Your task to perform on an android device: Open ESPN.com Image 0: 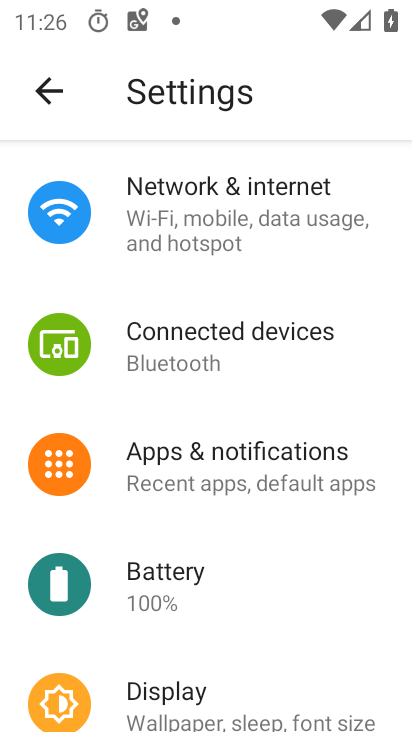
Step 0: press home button
Your task to perform on an android device: Open ESPN.com Image 1: 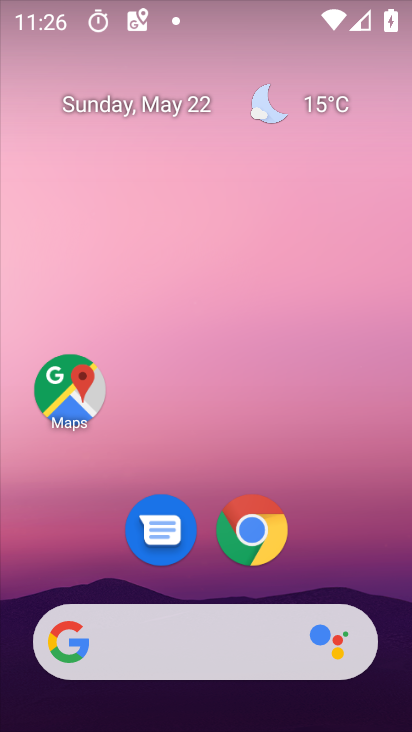
Step 1: drag from (399, 661) to (371, 238)
Your task to perform on an android device: Open ESPN.com Image 2: 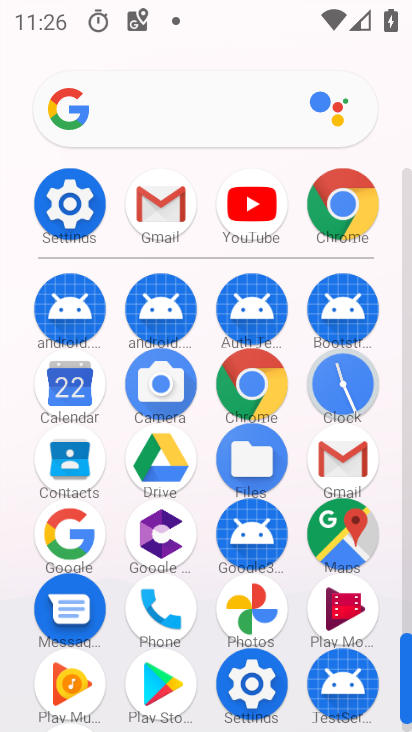
Step 2: click (345, 203)
Your task to perform on an android device: Open ESPN.com Image 3: 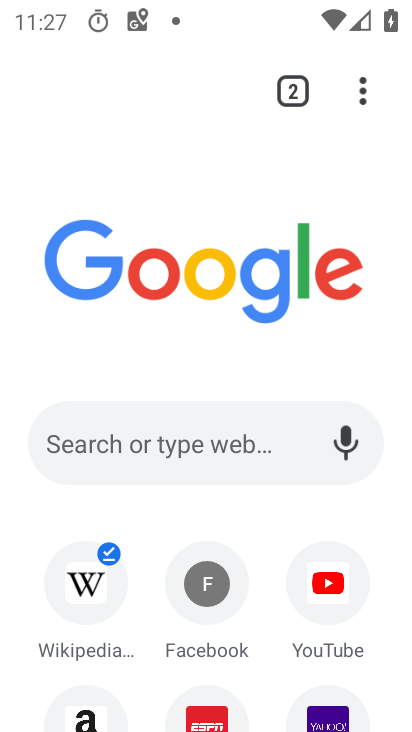
Step 3: click (255, 437)
Your task to perform on an android device: Open ESPN.com Image 4: 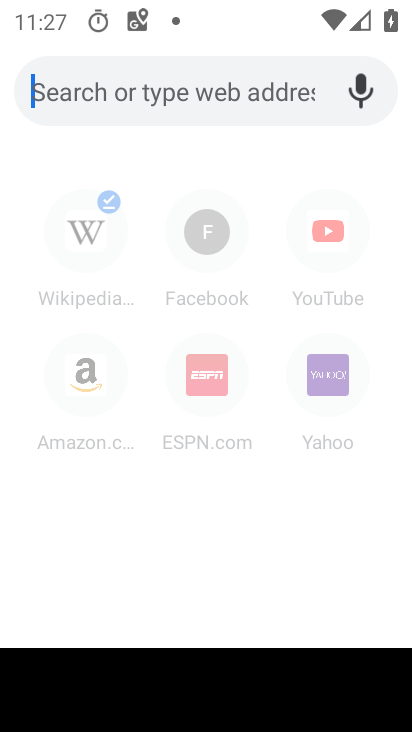
Step 4: type "ESPN.com"
Your task to perform on an android device: Open ESPN.com Image 5: 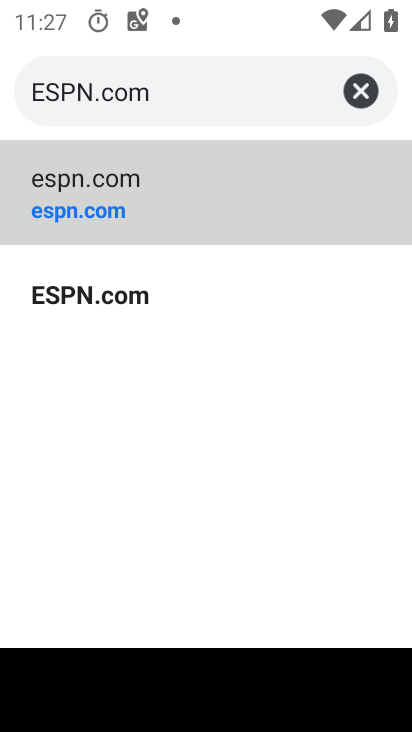
Step 5: click (121, 291)
Your task to perform on an android device: Open ESPN.com Image 6: 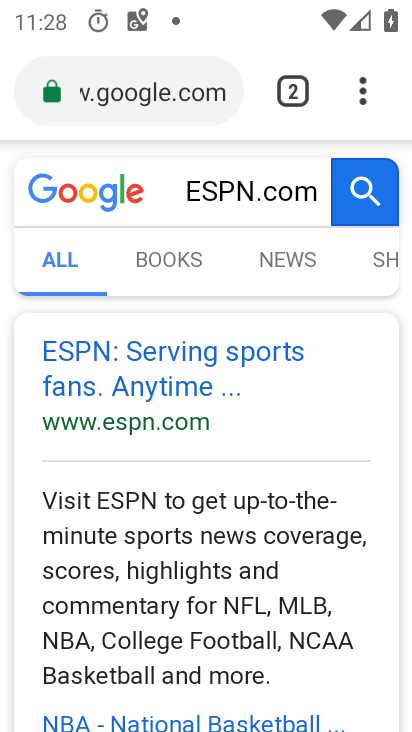
Step 6: click (227, 90)
Your task to perform on an android device: Open ESPN.com Image 7: 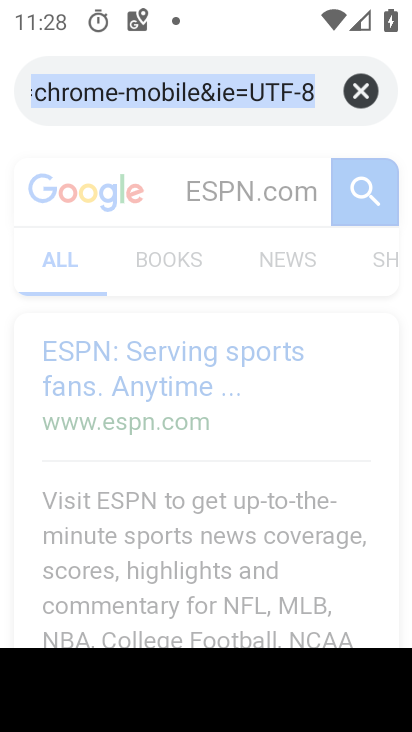
Step 7: click (359, 91)
Your task to perform on an android device: Open ESPN.com Image 8: 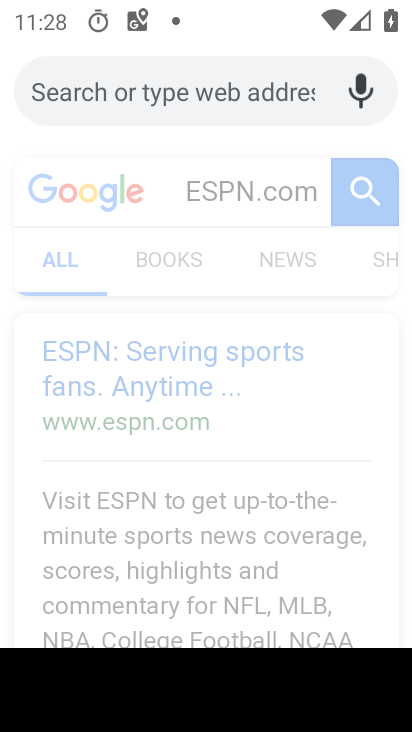
Step 8: click (174, 92)
Your task to perform on an android device: Open ESPN.com Image 9: 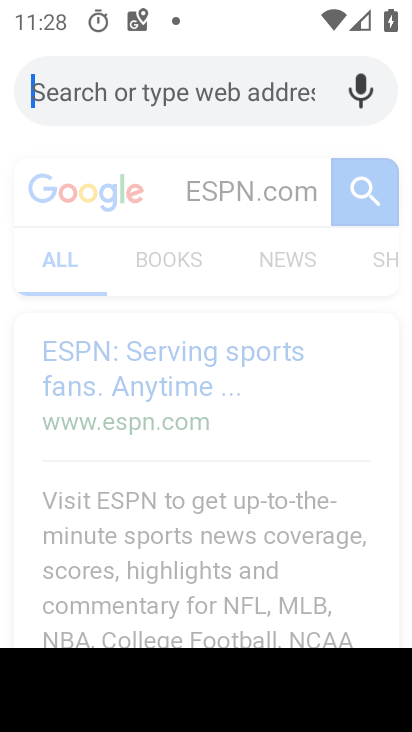
Step 9: click (174, 92)
Your task to perform on an android device: Open ESPN.com Image 10: 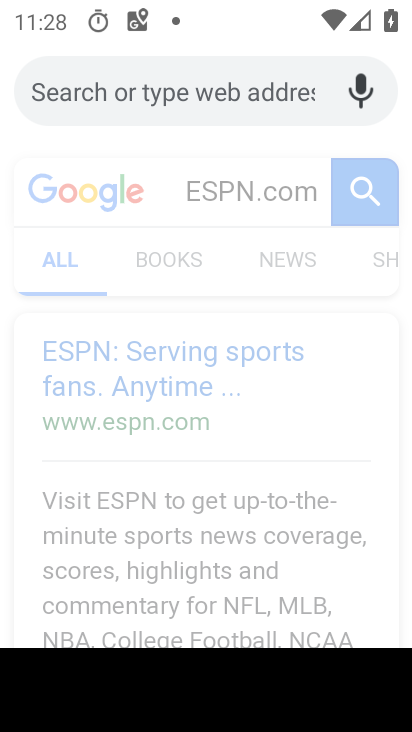
Step 10: type "ESPN.com"
Your task to perform on an android device: Open ESPN.com Image 11: 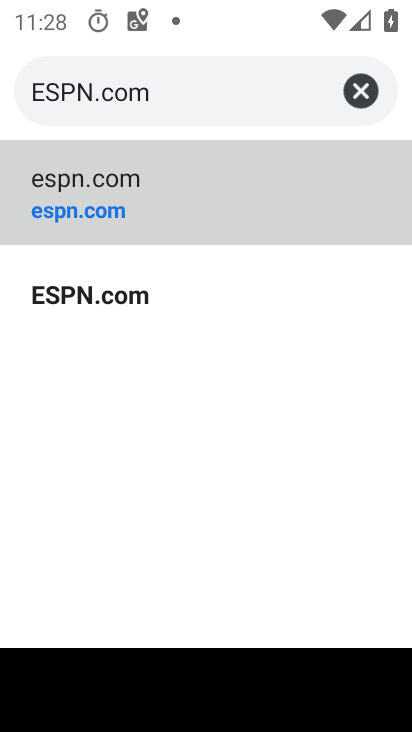
Step 11: click (76, 301)
Your task to perform on an android device: Open ESPN.com Image 12: 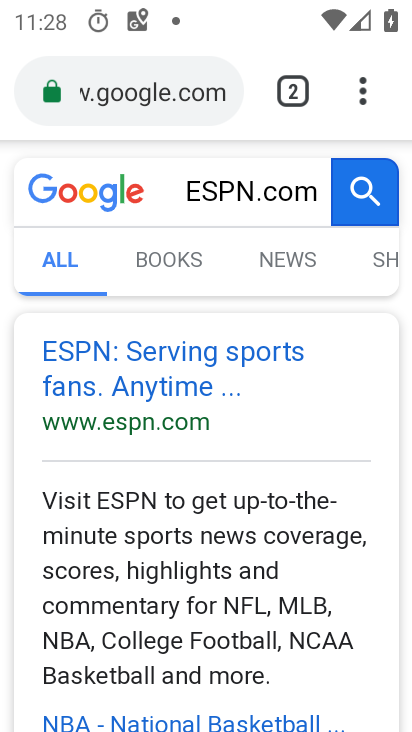
Step 12: task complete